Your task to perform on an android device: turn smart compose on in the gmail app Image 0: 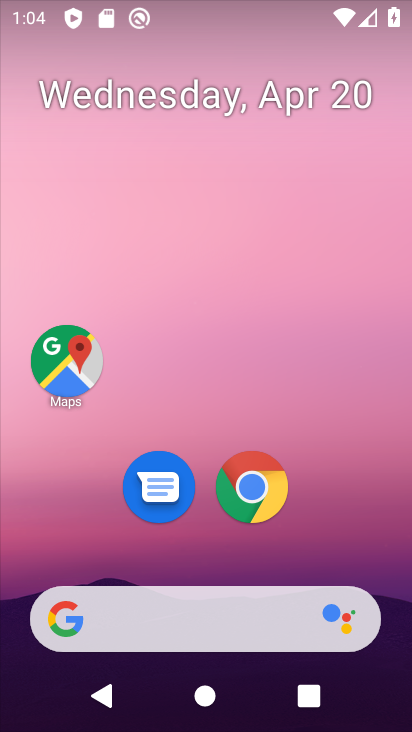
Step 0: drag from (345, 575) to (222, 32)
Your task to perform on an android device: turn smart compose on in the gmail app Image 1: 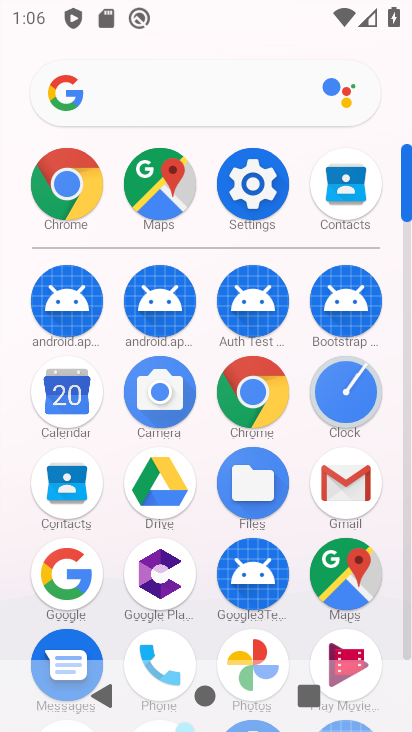
Step 1: click (365, 474)
Your task to perform on an android device: turn smart compose on in the gmail app Image 2: 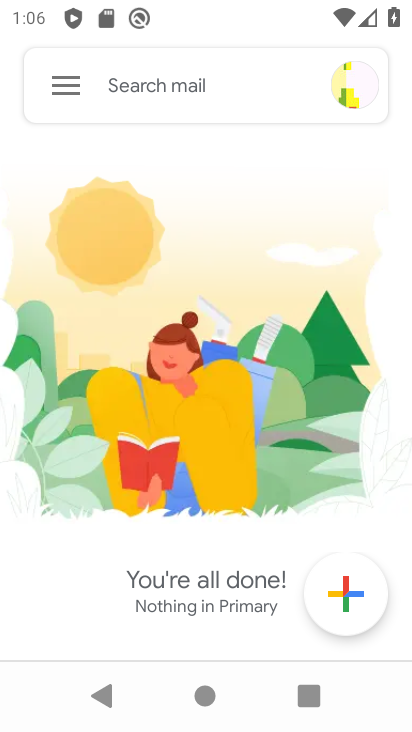
Step 2: click (40, 98)
Your task to perform on an android device: turn smart compose on in the gmail app Image 3: 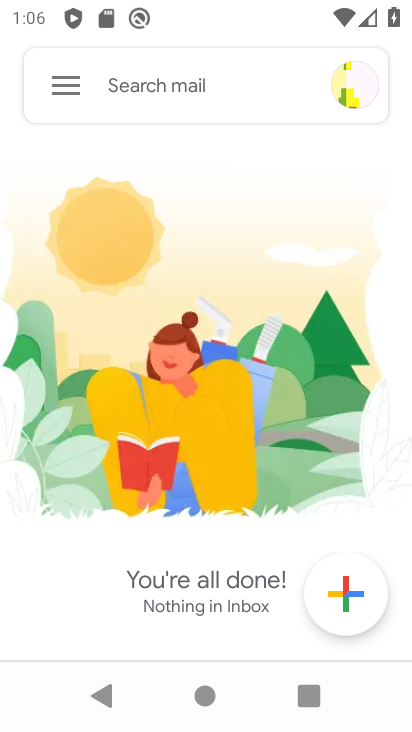
Step 3: click (57, 76)
Your task to perform on an android device: turn smart compose on in the gmail app Image 4: 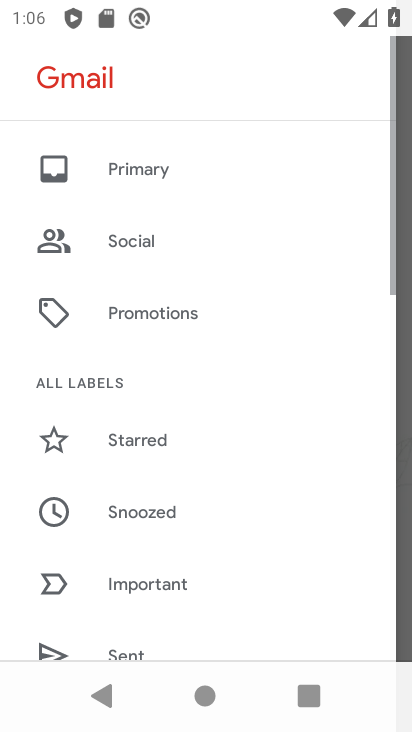
Step 4: drag from (151, 613) to (204, 69)
Your task to perform on an android device: turn smart compose on in the gmail app Image 5: 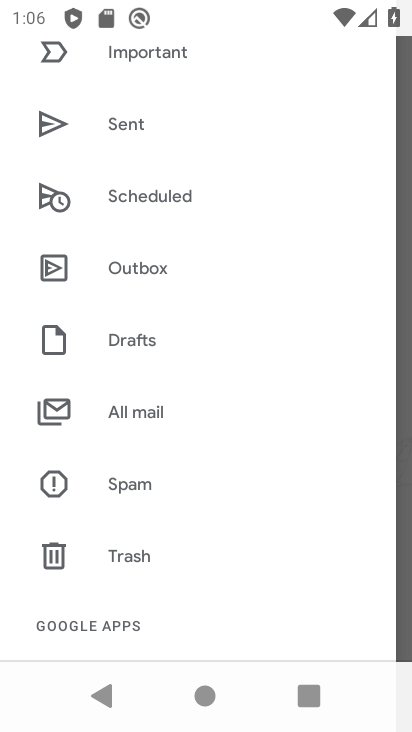
Step 5: drag from (168, 593) to (233, 85)
Your task to perform on an android device: turn smart compose on in the gmail app Image 6: 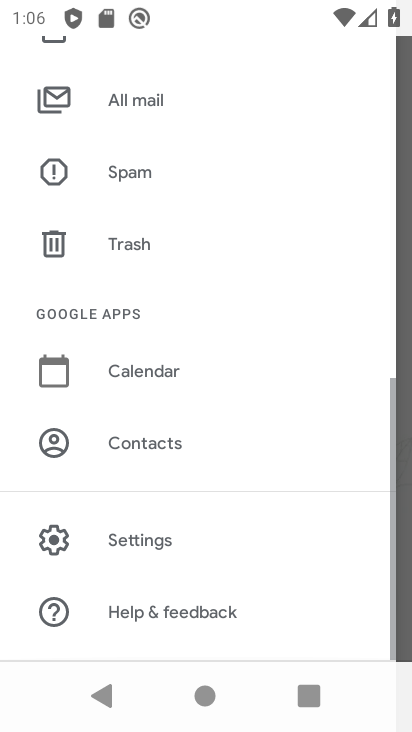
Step 6: click (204, 530)
Your task to perform on an android device: turn smart compose on in the gmail app Image 7: 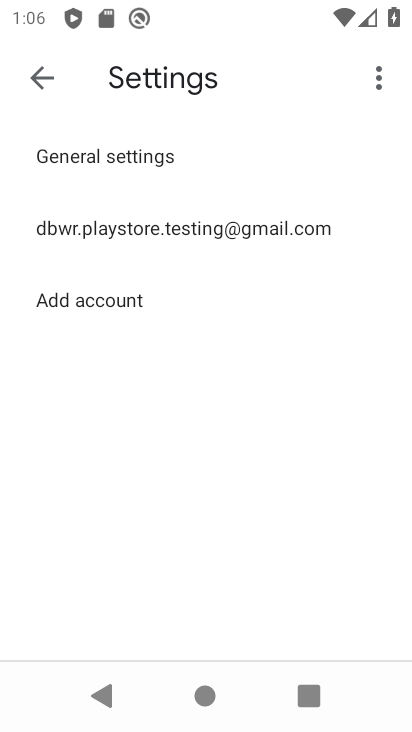
Step 7: click (216, 238)
Your task to perform on an android device: turn smart compose on in the gmail app Image 8: 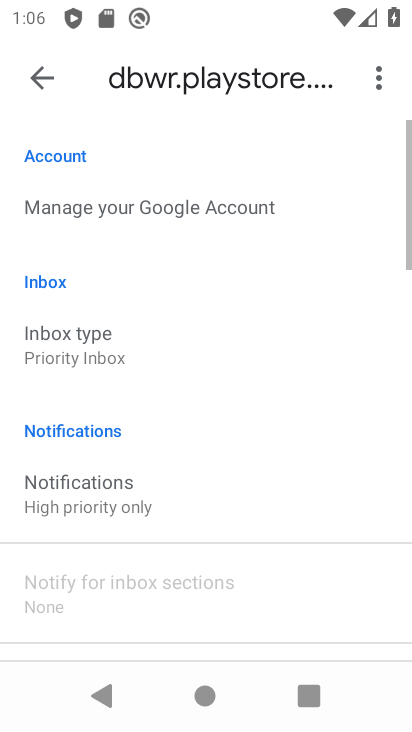
Step 8: task complete